Your task to perform on an android device: What is the news today? Image 0: 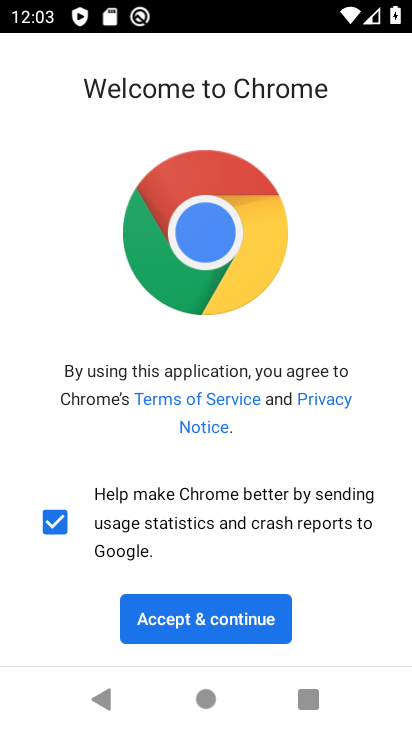
Step 0: click (171, 614)
Your task to perform on an android device: What is the news today? Image 1: 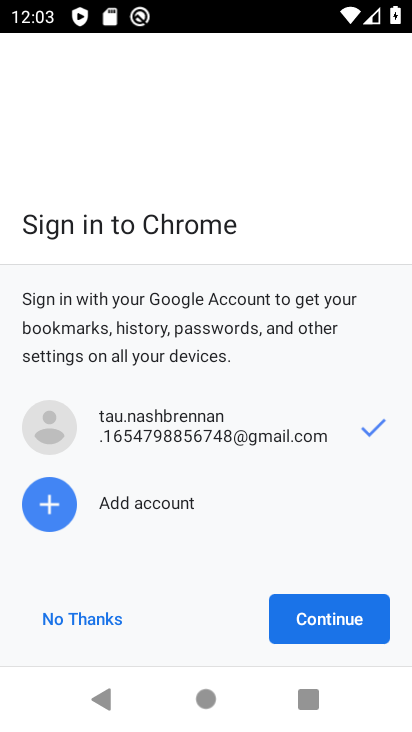
Step 1: click (106, 624)
Your task to perform on an android device: What is the news today? Image 2: 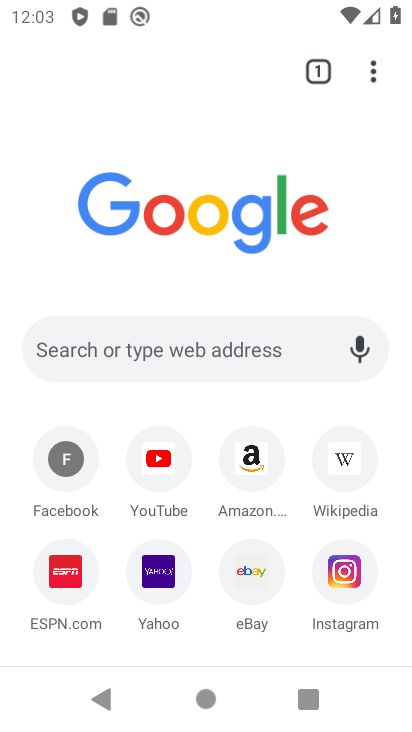
Step 2: click (199, 330)
Your task to perform on an android device: What is the news today? Image 3: 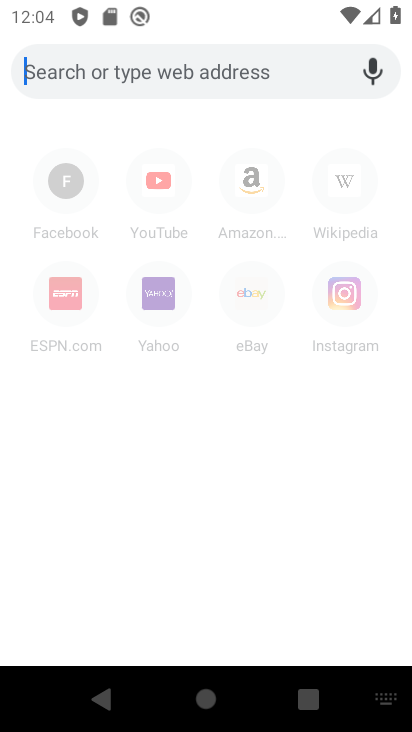
Step 3: type "what is the news today"
Your task to perform on an android device: What is the news today? Image 4: 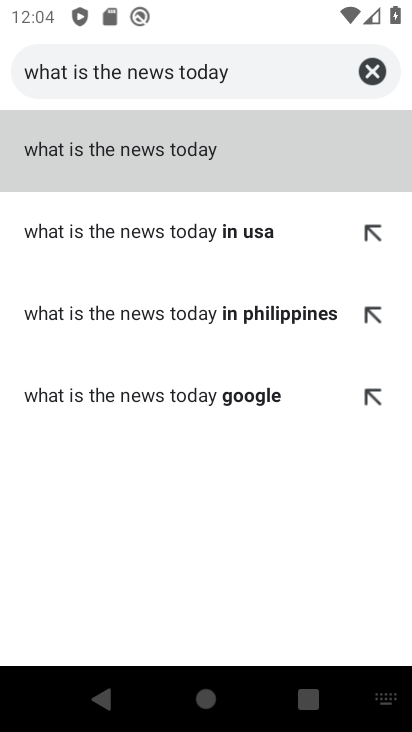
Step 4: click (328, 167)
Your task to perform on an android device: What is the news today? Image 5: 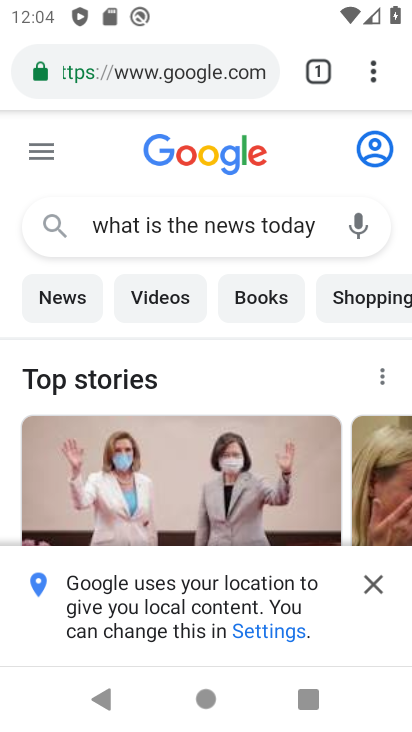
Step 5: task complete